Your task to perform on an android device: What's the weather? Image 0: 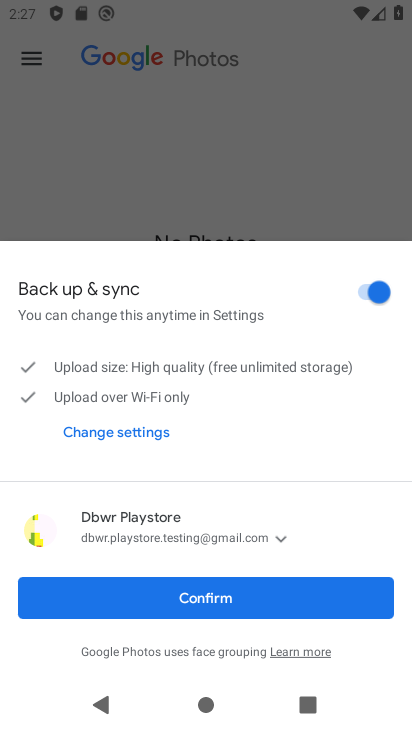
Step 0: press home button
Your task to perform on an android device: What's the weather? Image 1: 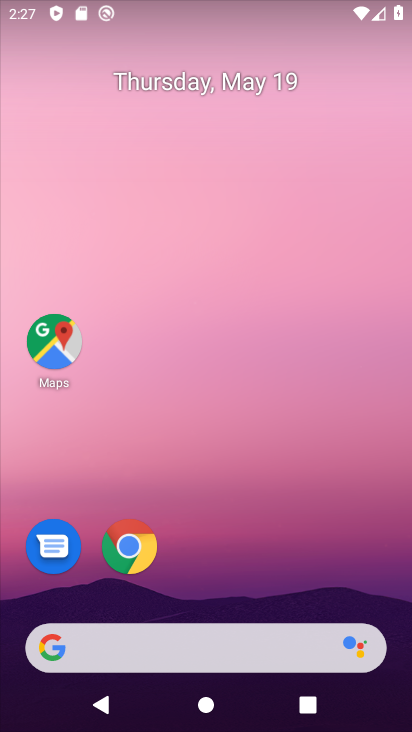
Step 1: drag from (236, 556) to (201, 50)
Your task to perform on an android device: What's the weather? Image 2: 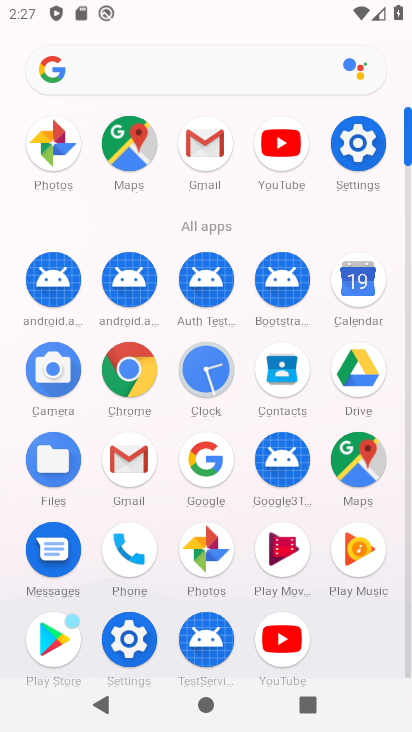
Step 2: drag from (241, 432) to (240, 231)
Your task to perform on an android device: What's the weather? Image 3: 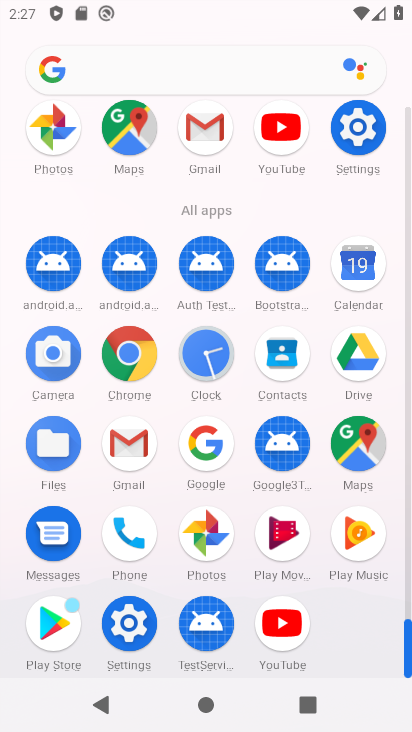
Step 3: click (200, 440)
Your task to perform on an android device: What's the weather? Image 4: 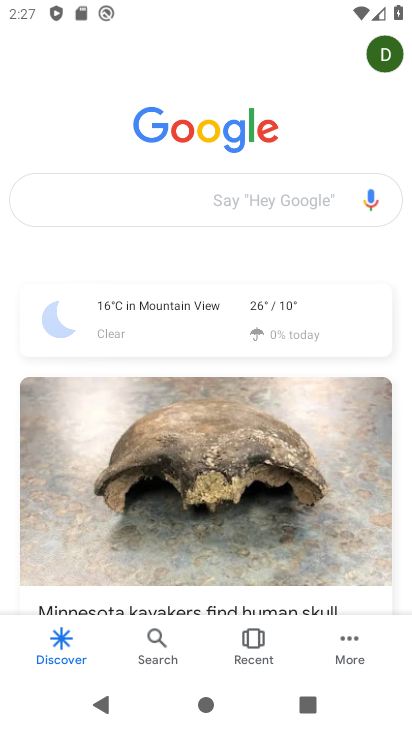
Step 4: click (177, 299)
Your task to perform on an android device: What's the weather? Image 5: 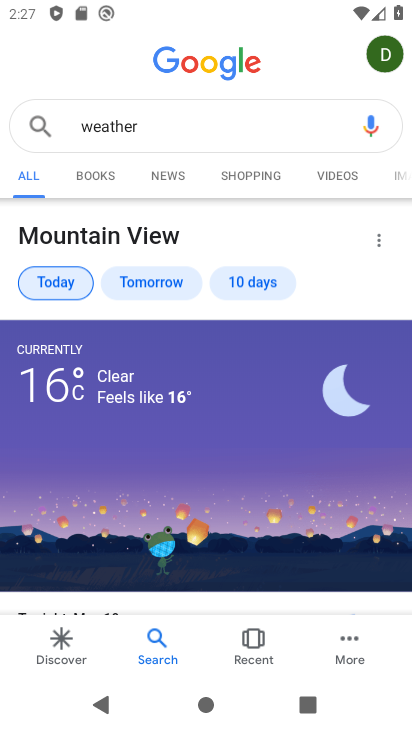
Step 5: task complete